Your task to perform on an android device: turn pop-ups off in chrome Image 0: 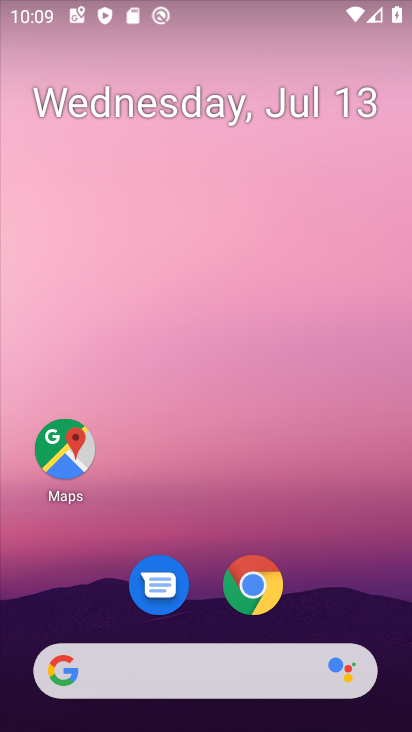
Step 0: click (258, 581)
Your task to perform on an android device: turn pop-ups off in chrome Image 1: 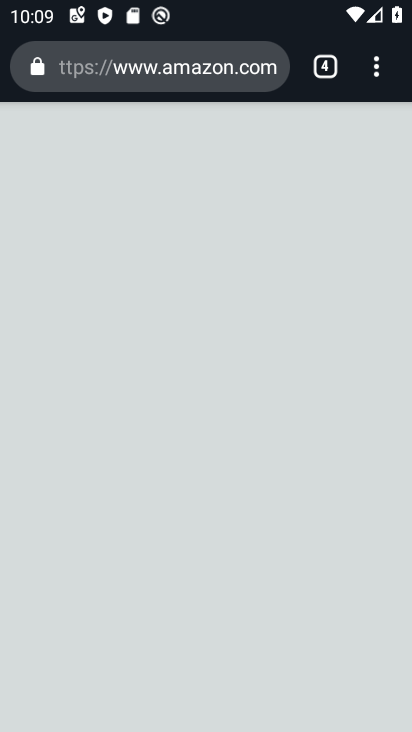
Step 1: click (375, 70)
Your task to perform on an android device: turn pop-ups off in chrome Image 2: 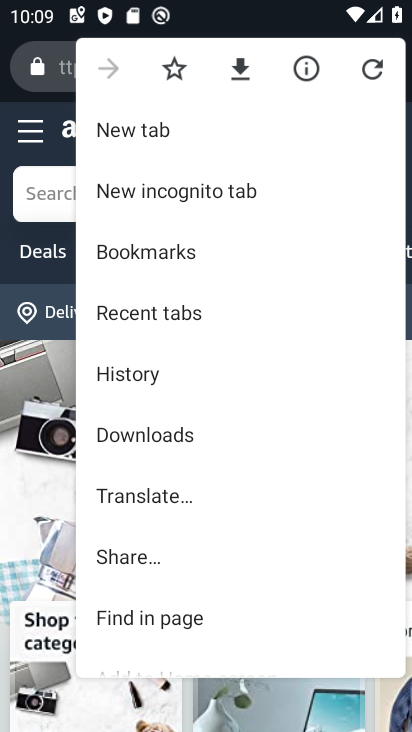
Step 2: drag from (288, 510) to (266, 233)
Your task to perform on an android device: turn pop-ups off in chrome Image 3: 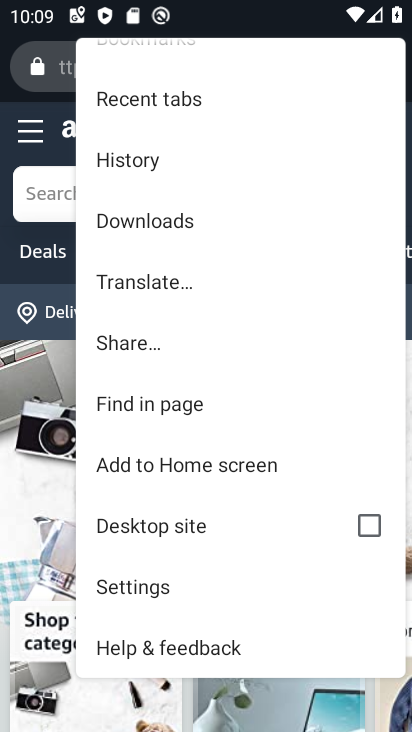
Step 3: click (156, 587)
Your task to perform on an android device: turn pop-ups off in chrome Image 4: 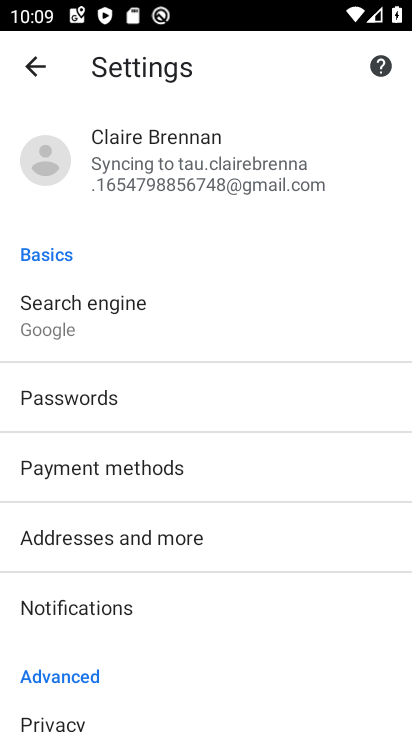
Step 4: drag from (170, 623) to (183, 321)
Your task to perform on an android device: turn pop-ups off in chrome Image 5: 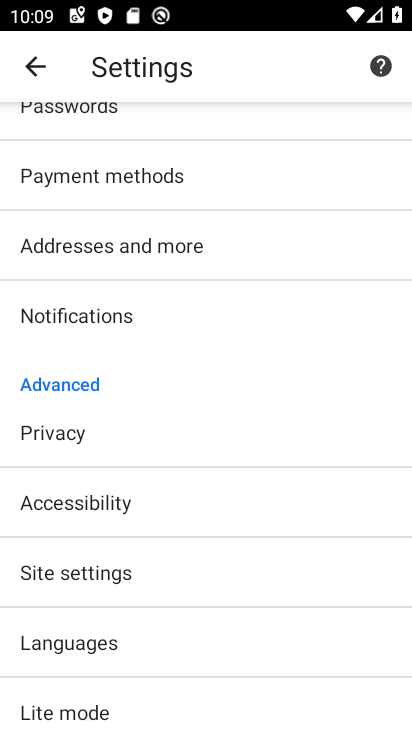
Step 5: click (114, 579)
Your task to perform on an android device: turn pop-ups off in chrome Image 6: 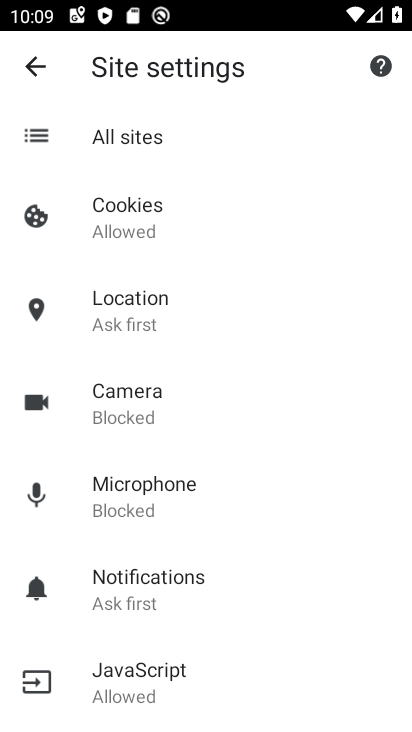
Step 6: drag from (268, 590) to (241, 369)
Your task to perform on an android device: turn pop-ups off in chrome Image 7: 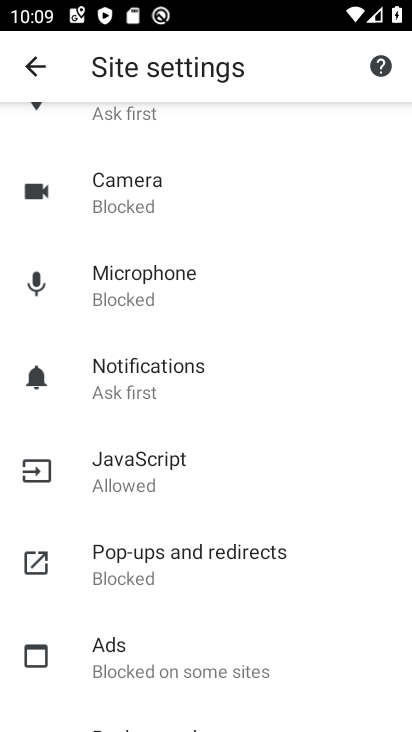
Step 7: click (222, 566)
Your task to perform on an android device: turn pop-ups off in chrome Image 8: 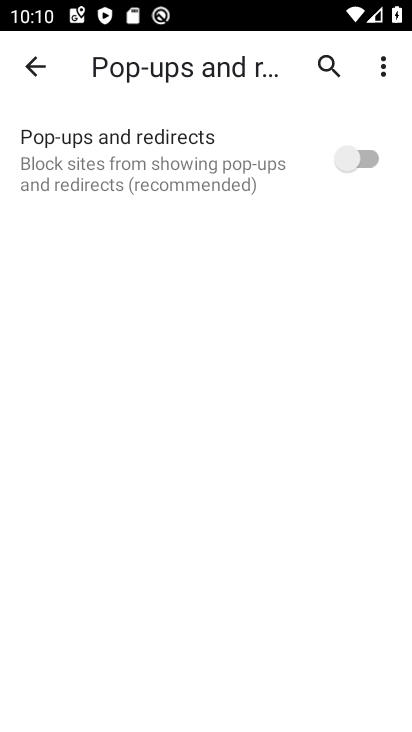
Step 8: task complete